Your task to perform on an android device: change notification settings in the gmail app Image 0: 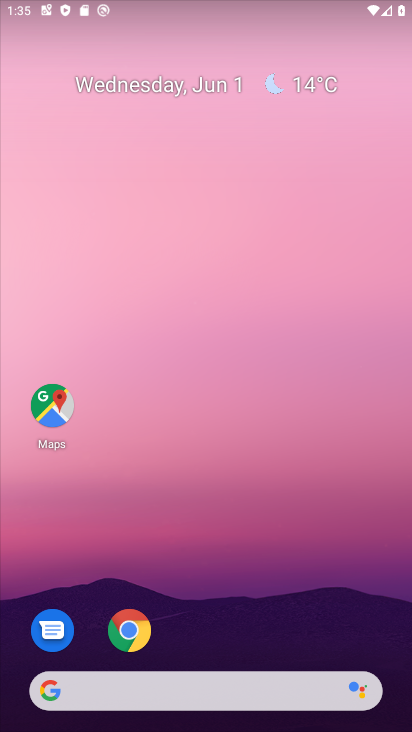
Step 0: press home button
Your task to perform on an android device: change notification settings in the gmail app Image 1: 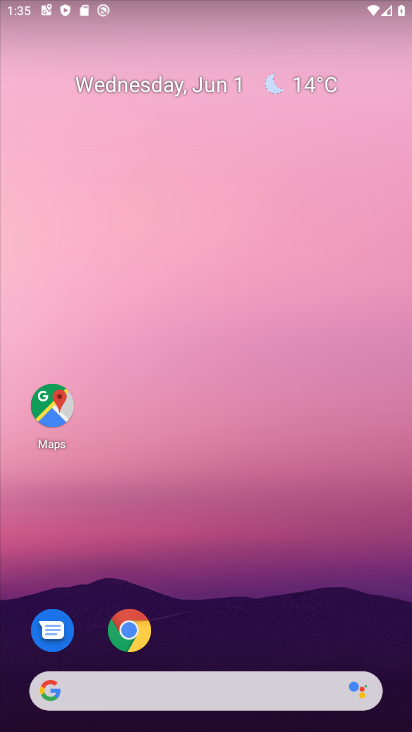
Step 1: press home button
Your task to perform on an android device: change notification settings in the gmail app Image 2: 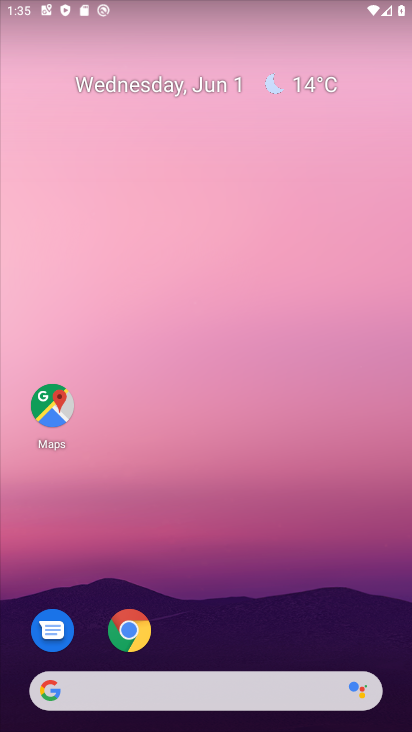
Step 2: drag from (212, 636) to (258, 79)
Your task to perform on an android device: change notification settings in the gmail app Image 3: 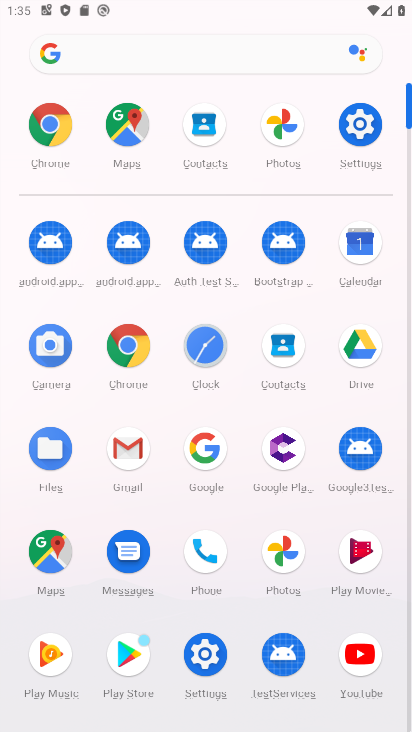
Step 3: click (123, 440)
Your task to perform on an android device: change notification settings in the gmail app Image 4: 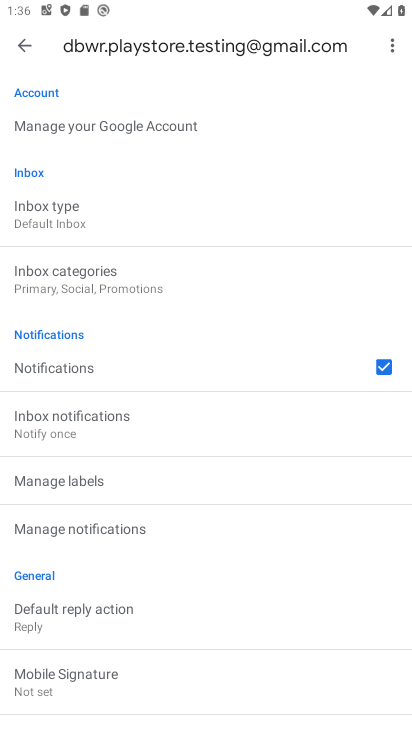
Step 4: click (28, 50)
Your task to perform on an android device: change notification settings in the gmail app Image 5: 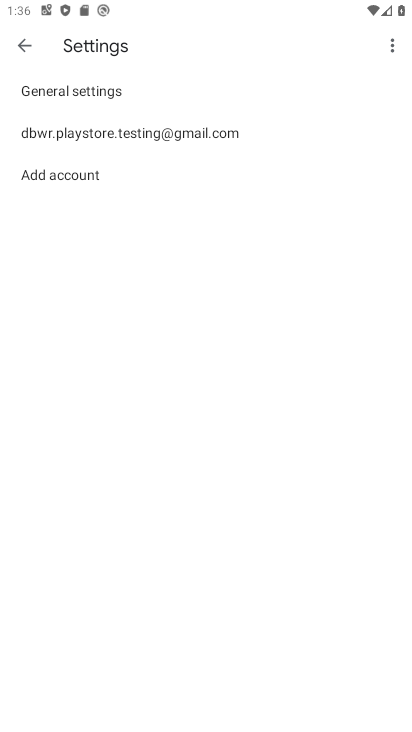
Step 5: click (134, 89)
Your task to perform on an android device: change notification settings in the gmail app Image 6: 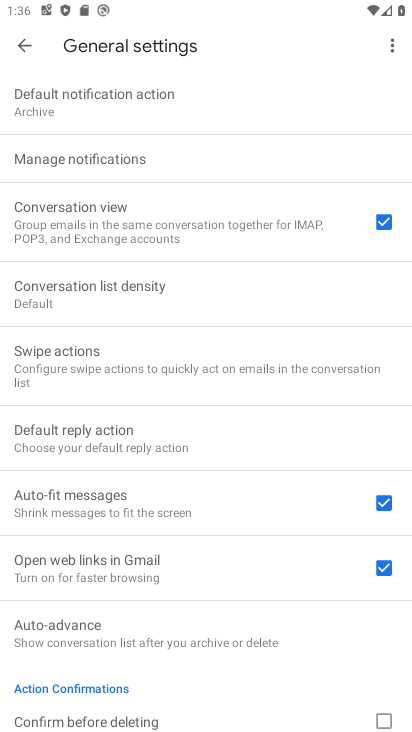
Step 6: click (156, 156)
Your task to perform on an android device: change notification settings in the gmail app Image 7: 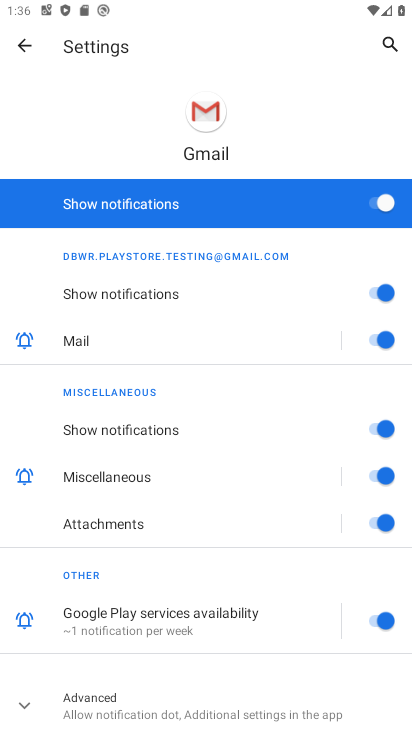
Step 7: click (374, 195)
Your task to perform on an android device: change notification settings in the gmail app Image 8: 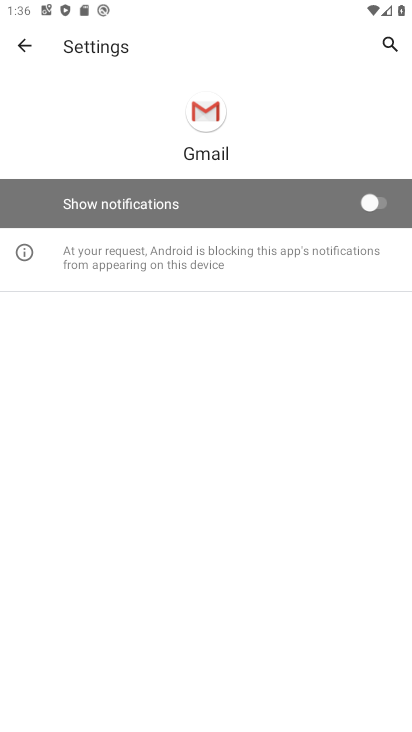
Step 8: task complete